Your task to perform on an android device: open app "ZOOM Cloud Meetings" Image 0: 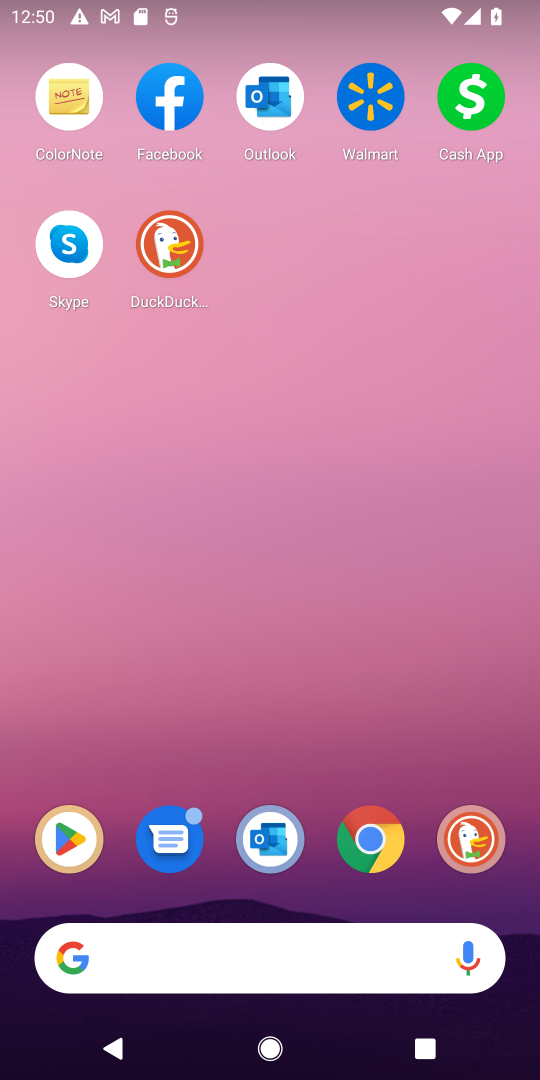
Step 0: click (59, 830)
Your task to perform on an android device: open app "ZOOM Cloud Meetings" Image 1: 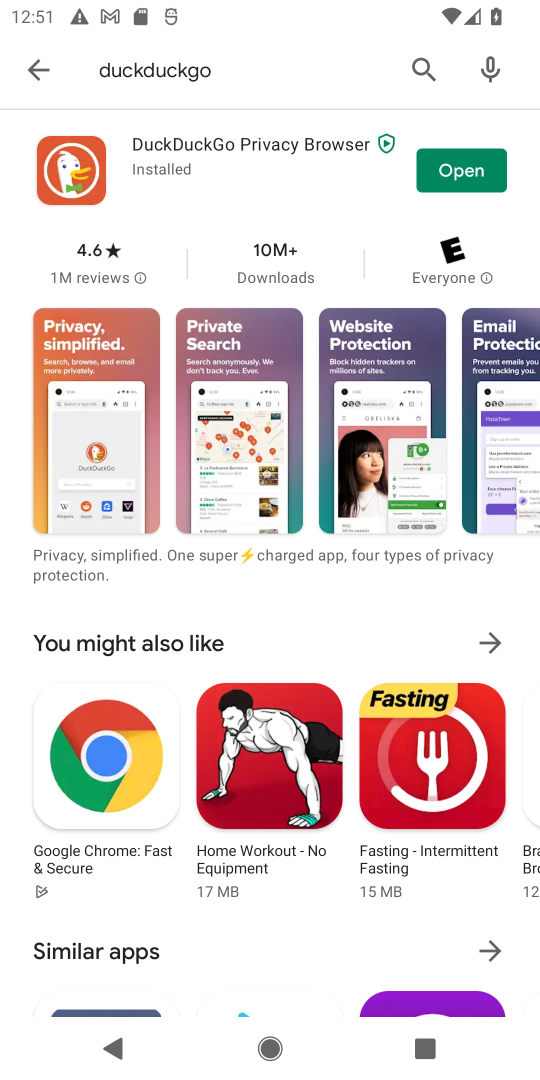
Step 1: click (420, 52)
Your task to perform on an android device: open app "ZOOM Cloud Meetings" Image 2: 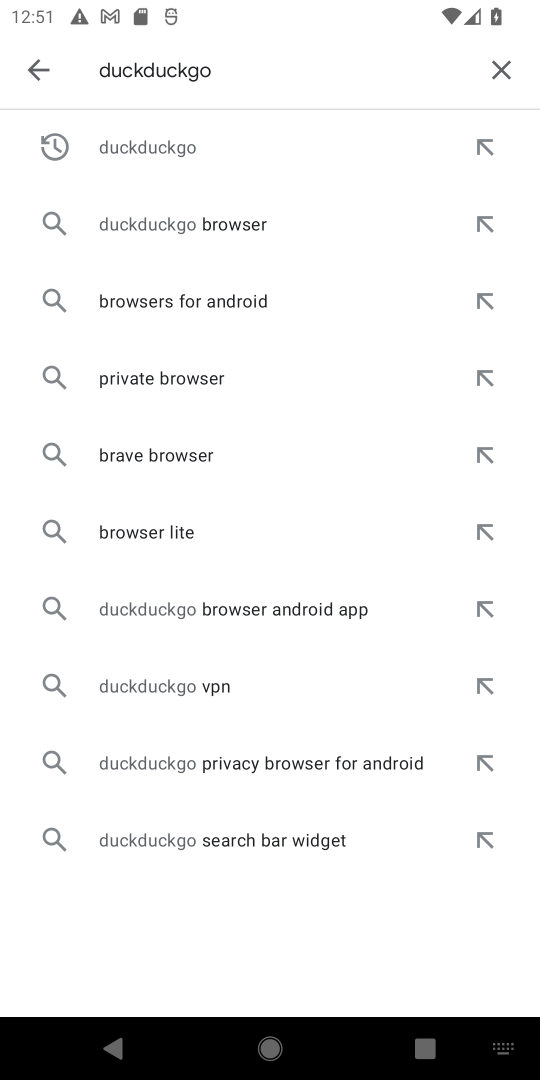
Step 2: click (509, 70)
Your task to perform on an android device: open app "ZOOM Cloud Meetings" Image 3: 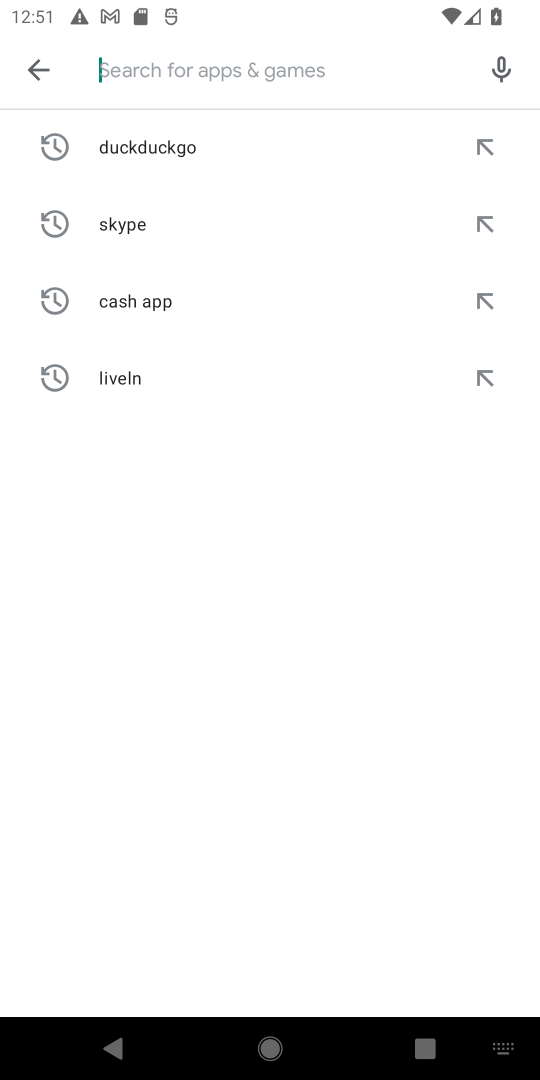
Step 3: type "zoom cloud meetings"
Your task to perform on an android device: open app "ZOOM Cloud Meetings" Image 4: 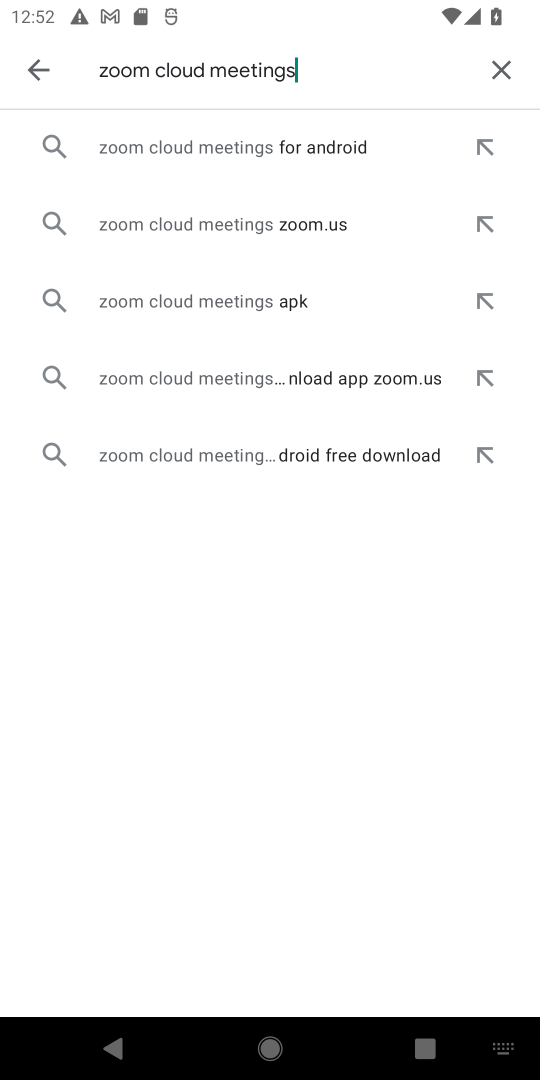
Step 4: click (211, 136)
Your task to perform on an android device: open app "ZOOM Cloud Meetings" Image 5: 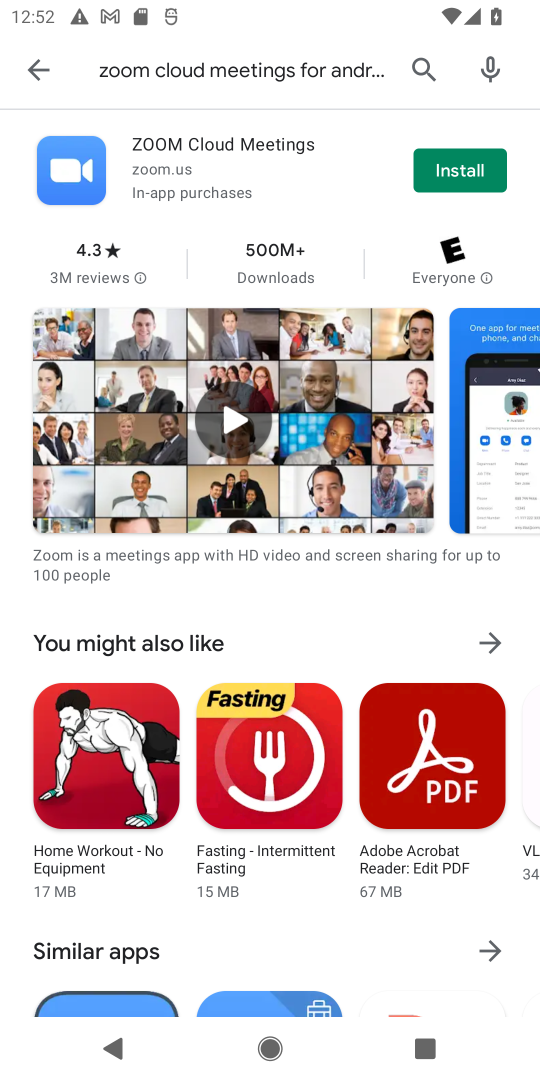
Step 5: task complete